Your task to perform on an android device: turn off wifi Image 0: 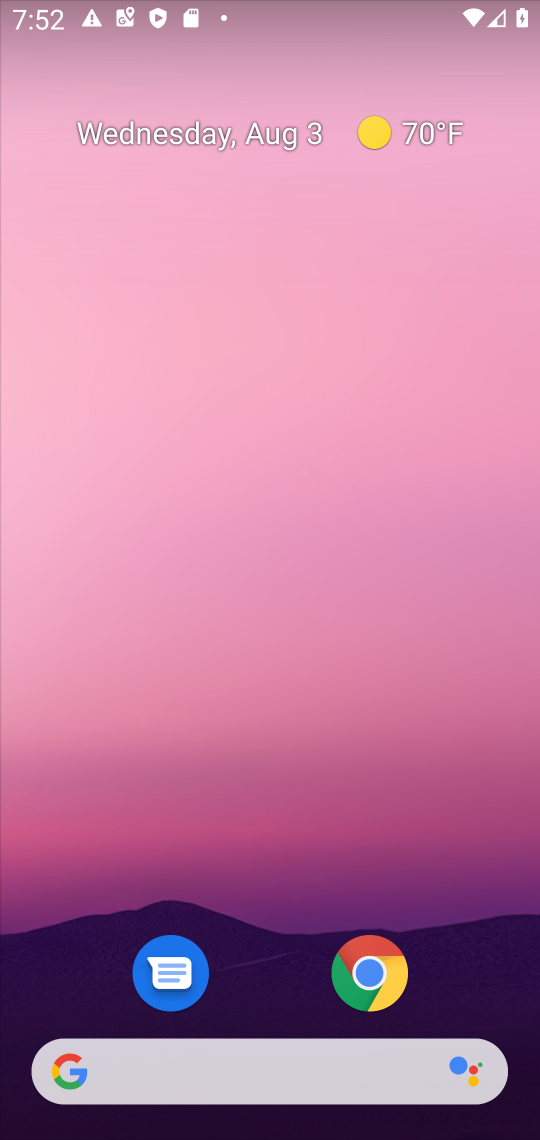
Step 0: press home button
Your task to perform on an android device: turn off wifi Image 1: 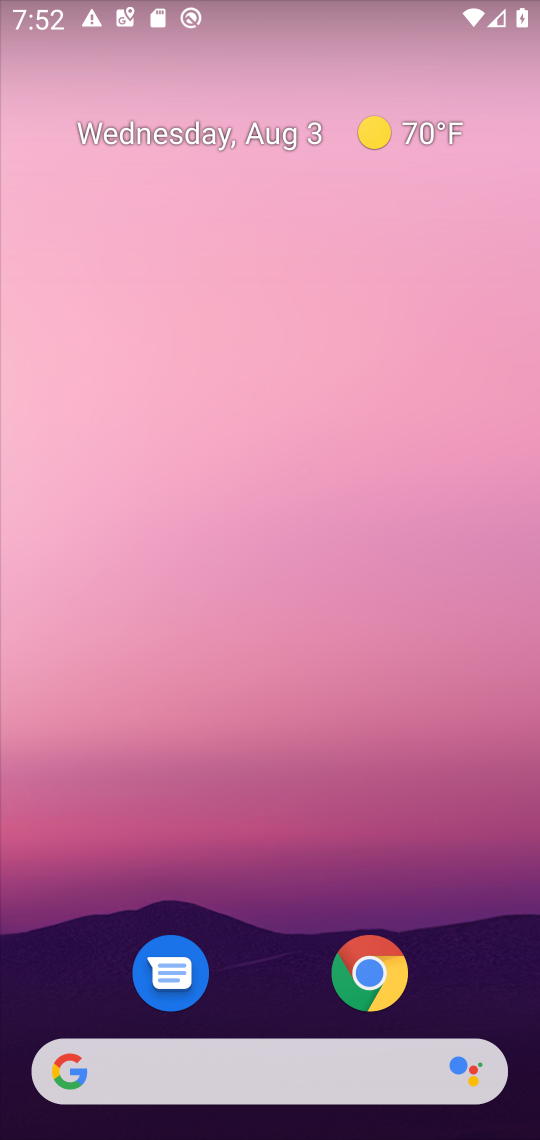
Step 1: drag from (229, 14) to (280, 771)
Your task to perform on an android device: turn off wifi Image 2: 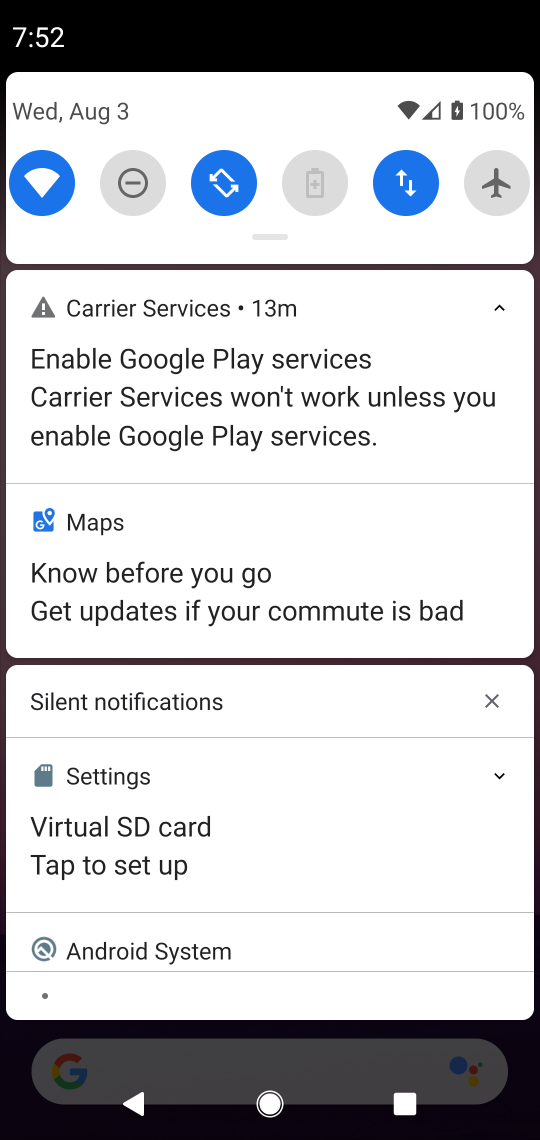
Step 2: click (46, 179)
Your task to perform on an android device: turn off wifi Image 3: 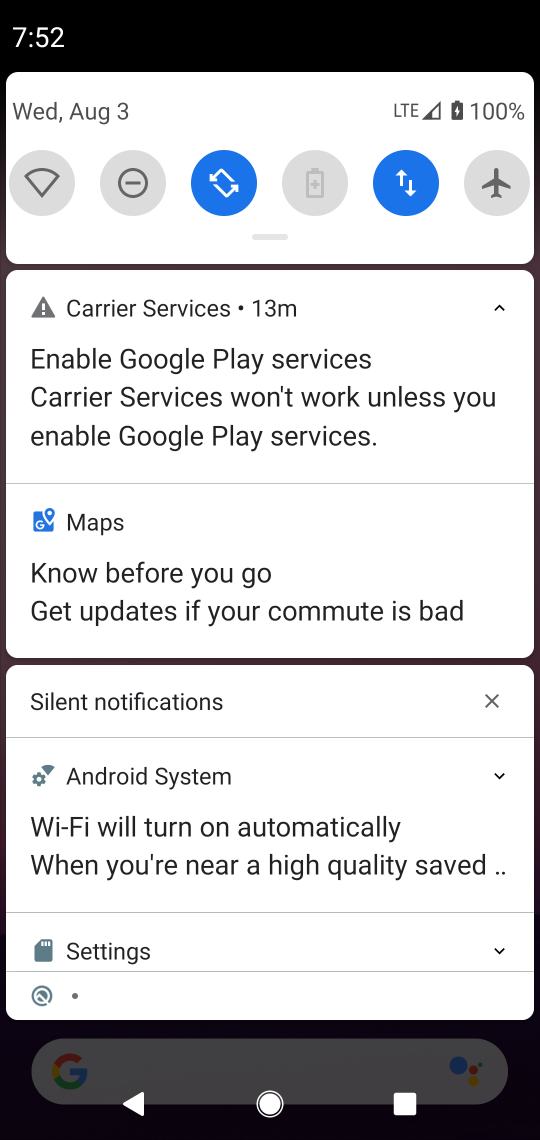
Step 3: task complete